Your task to perform on an android device: Search for razer blade on bestbuy, select the first entry, add it to the cart, then select checkout. Image 0: 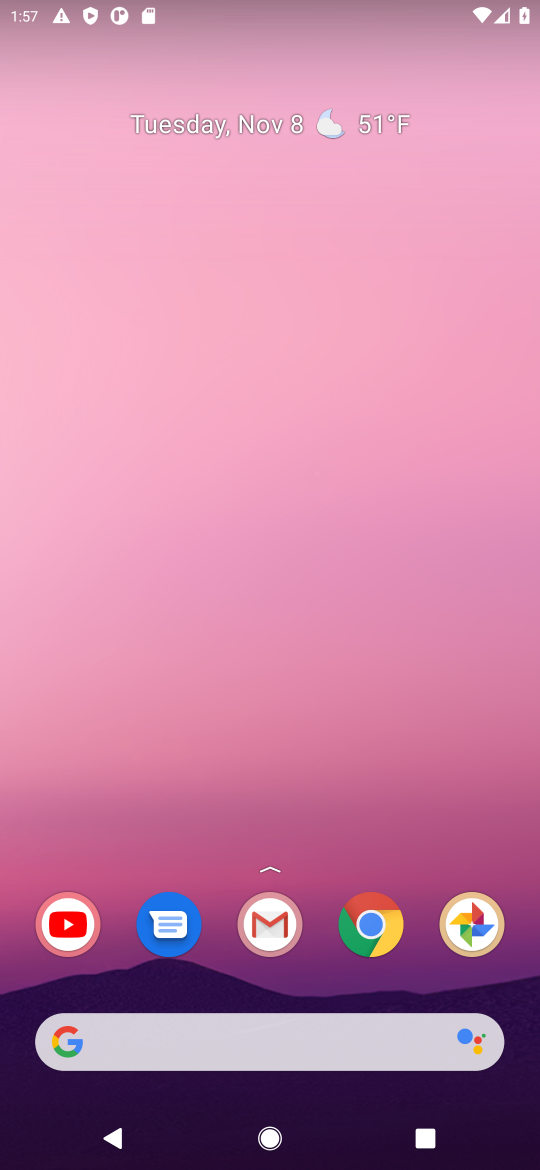
Step 0: click (358, 925)
Your task to perform on an android device: Search for razer blade on bestbuy, select the first entry, add it to the cart, then select checkout. Image 1: 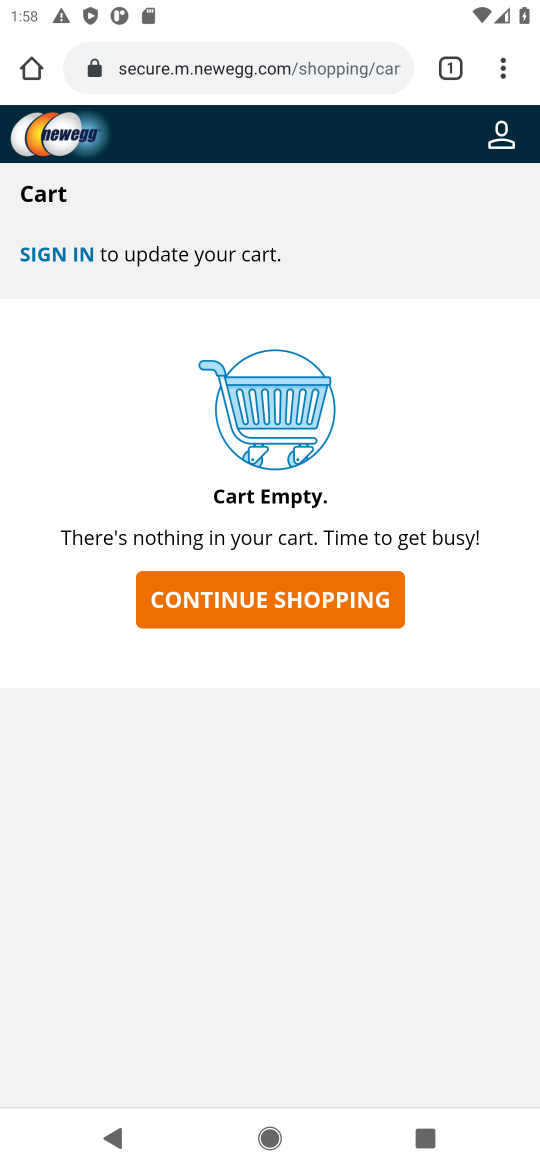
Step 1: click (285, 58)
Your task to perform on an android device: Search for razer blade on bestbuy, select the first entry, add it to the cart, then select checkout. Image 2: 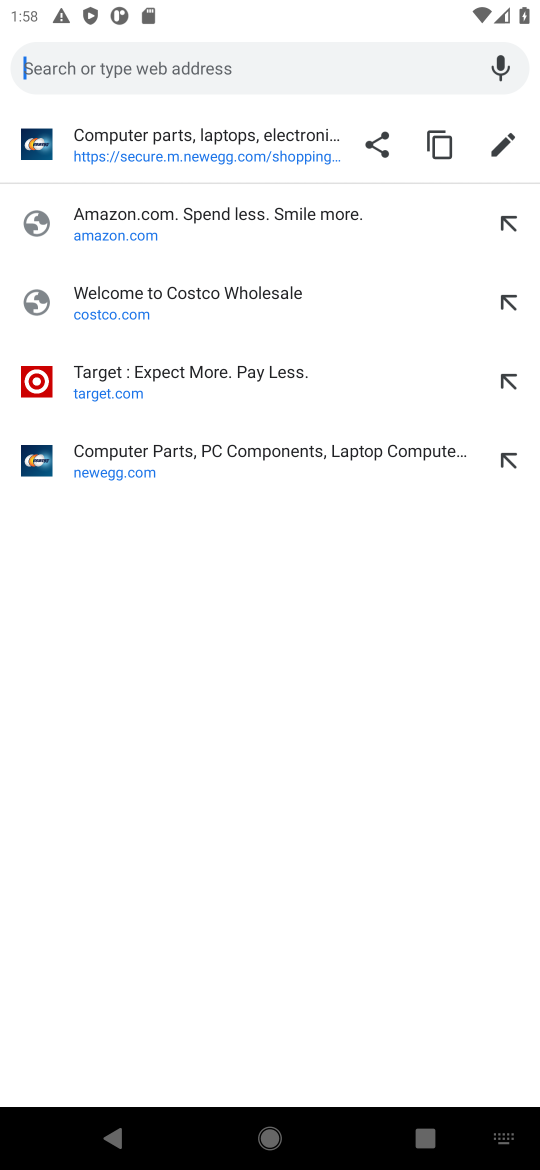
Step 2: type "bestbuy"
Your task to perform on an android device: Search for razer blade on bestbuy, select the first entry, add it to the cart, then select checkout. Image 3: 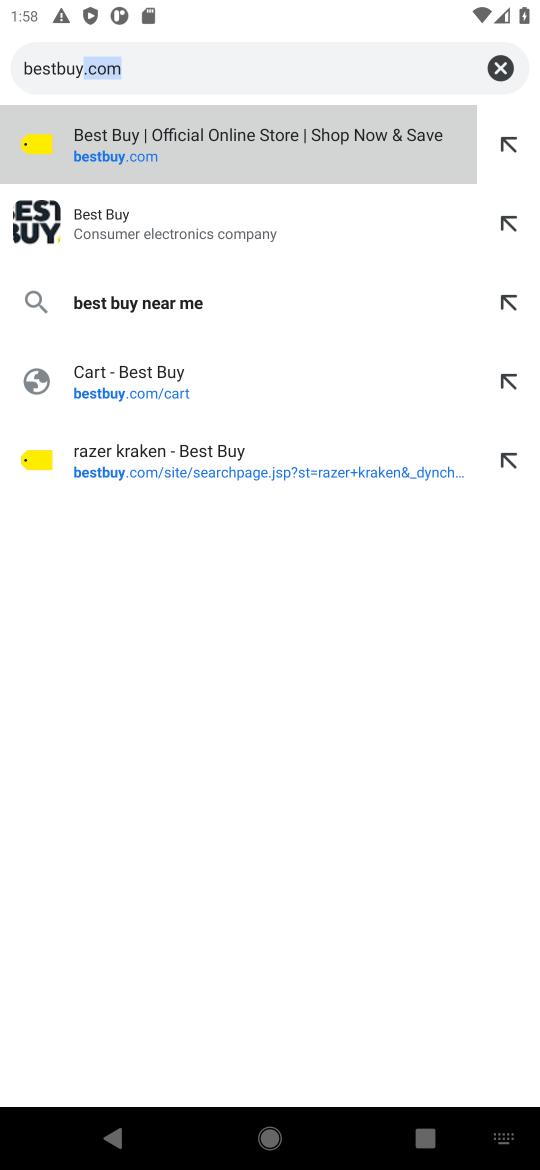
Step 3: type ""
Your task to perform on an android device: Search for razer blade on bestbuy, select the first entry, add it to the cart, then select checkout. Image 4: 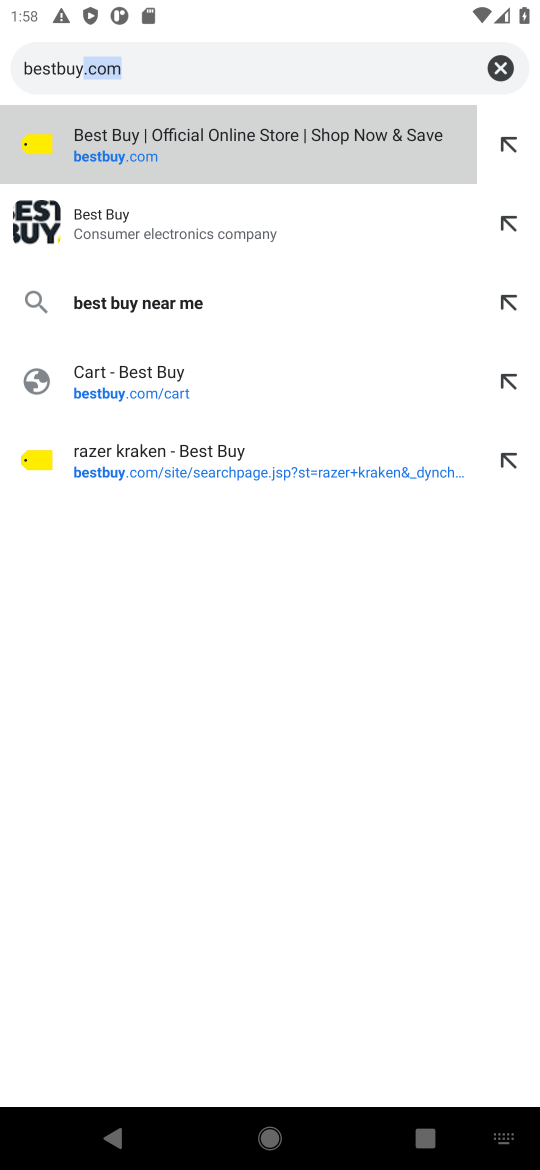
Step 4: click (83, 233)
Your task to perform on an android device: Search for razer blade on bestbuy, select the first entry, add it to the cart, then select checkout. Image 5: 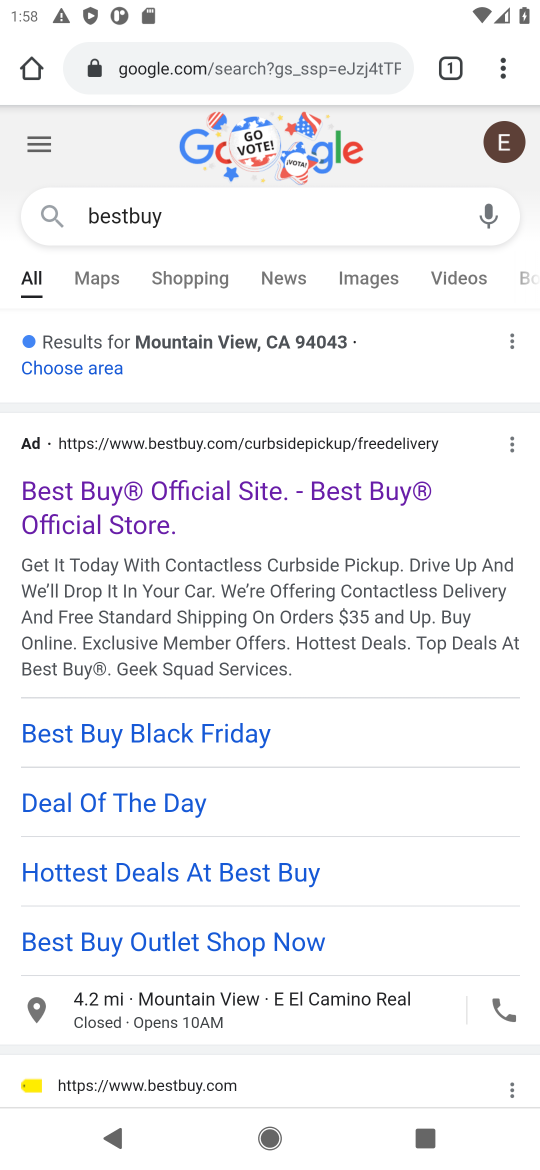
Step 5: click (203, 478)
Your task to perform on an android device: Search for razer blade on bestbuy, select the first entry, add it to the cart, then select checkout. Image 6: 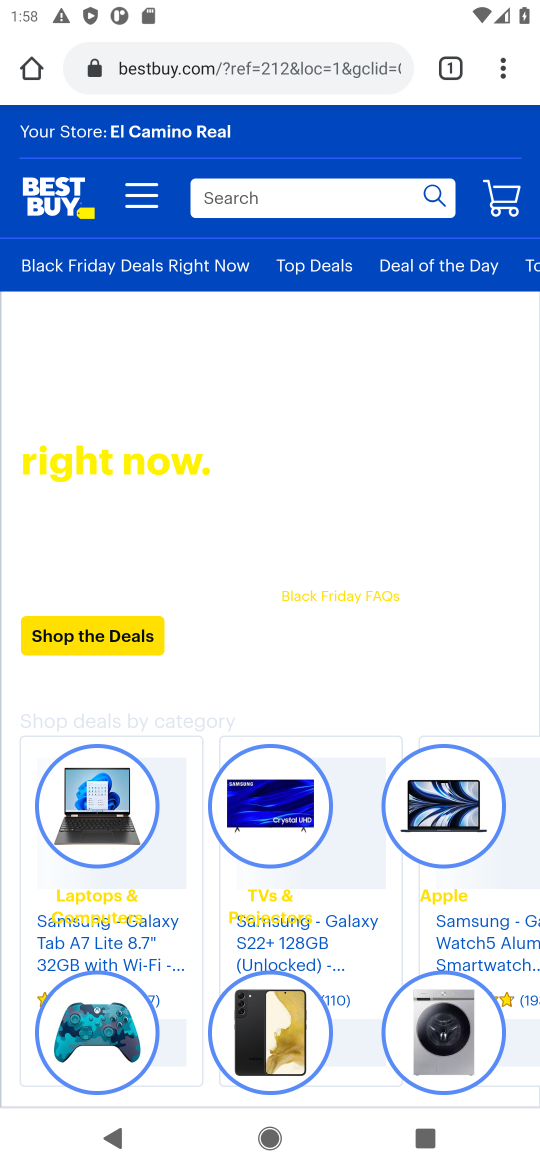
Step 6: click (235, 200)
Your task to perform on an android device: Search for razer blade on bestbuy, select the first entry, add it to the cart, then select checkout. Image 7: 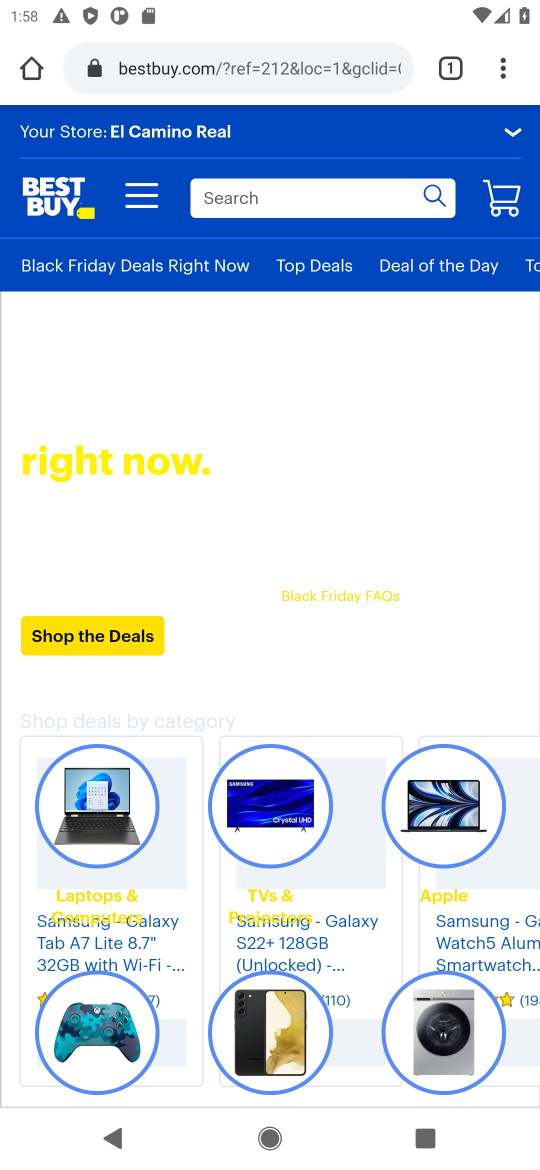
Step 7: type "razer blade"
Your task to perform on an android device: Search for razer blade on bestbuy, select the first entry, add it to the cart, then select checkout. Image 8: 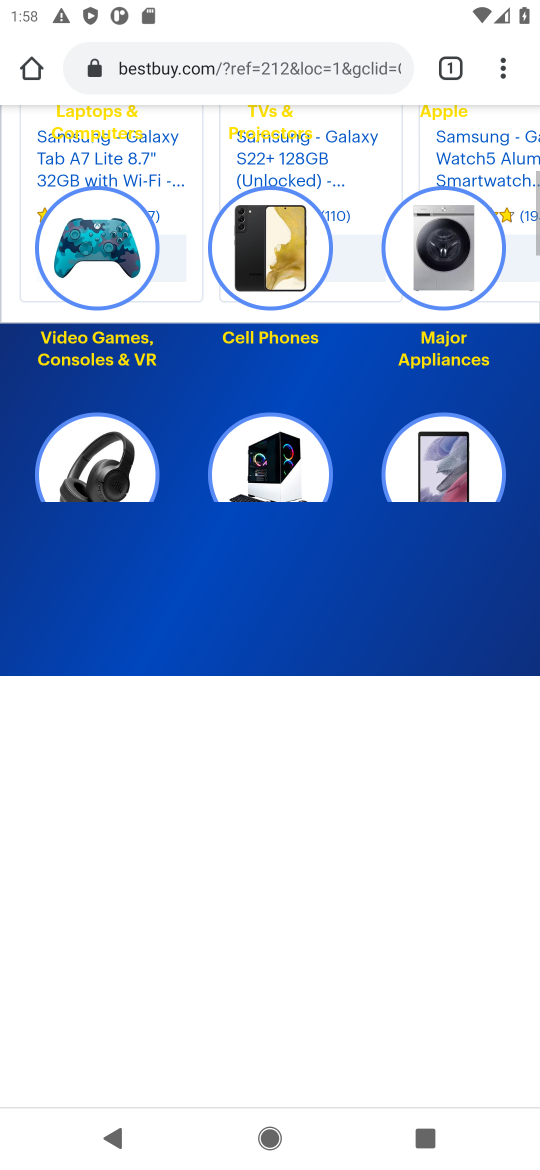
Step 8: type ""
Your task to perform on an android device: Search for razer blade on bestbuy, select the first entry, add it to the cart, then select checkout. Image 9: 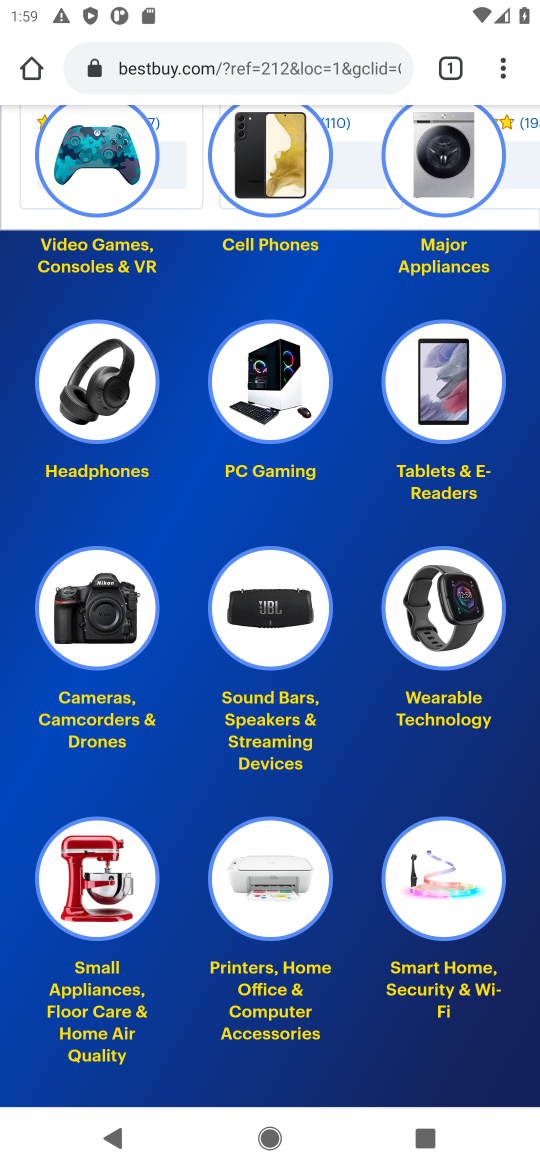
Step 9: drag from (200, 136) to (245, 916)
Your task to perform on an android device: Search for razer blade on bestbuy, select the first entry, add it to the cart, then select checkout. Image 10: 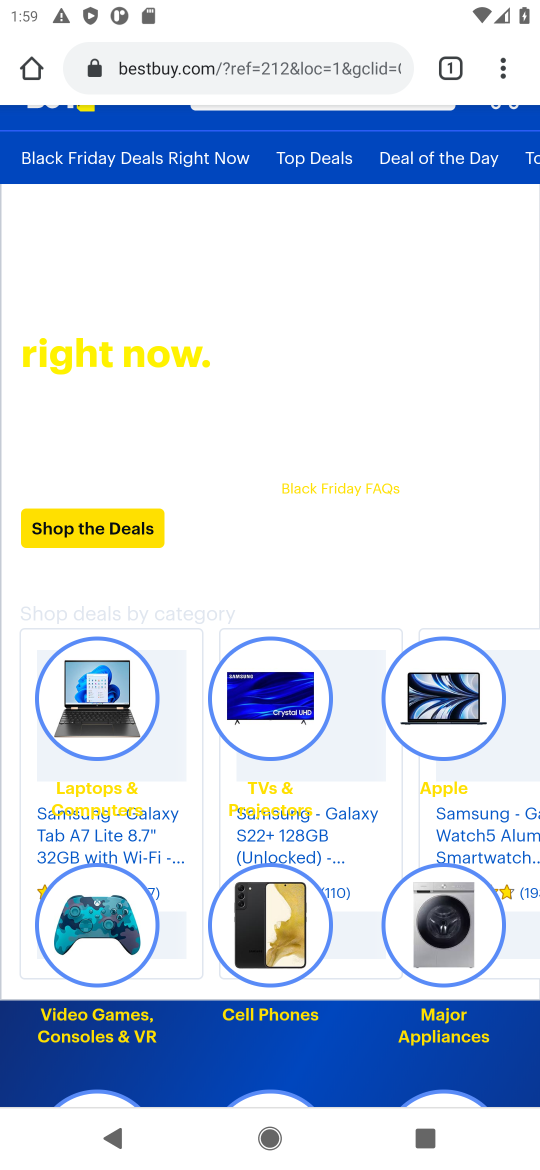
Step 10: drag from (337, 284) to (338, 573)
Your task to perform on an android device: Search for razer blade on bestbuy, select the first entry, add it to the cart, then select checkout. Image 11: 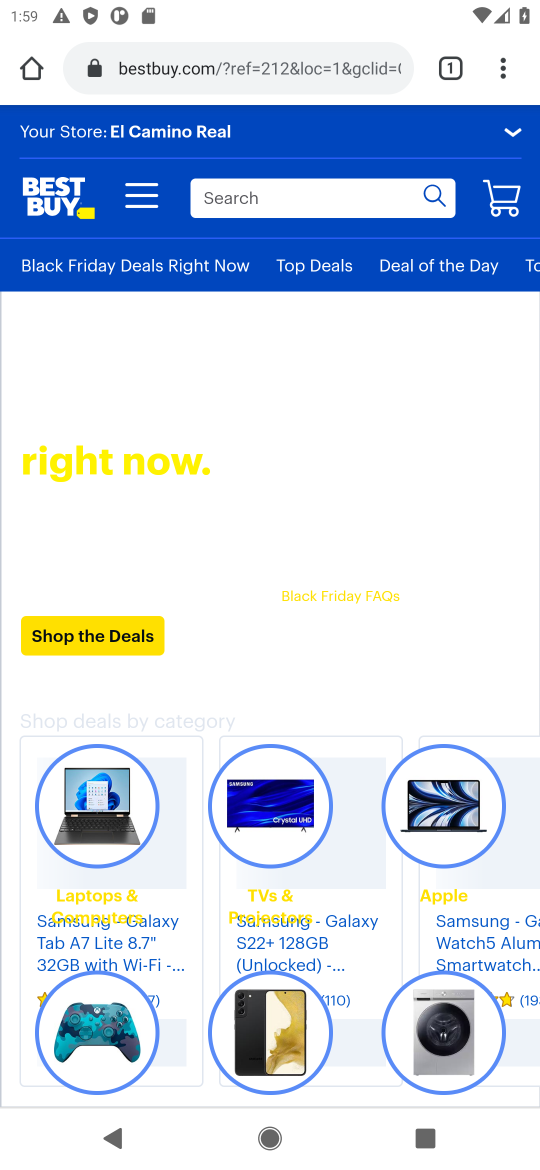
Step 11: click (242, 198)
Your task to perform on an android device: Search for razer blade on bestbuy, select the first entry, add it to the cart, then select checkout. Image 12: 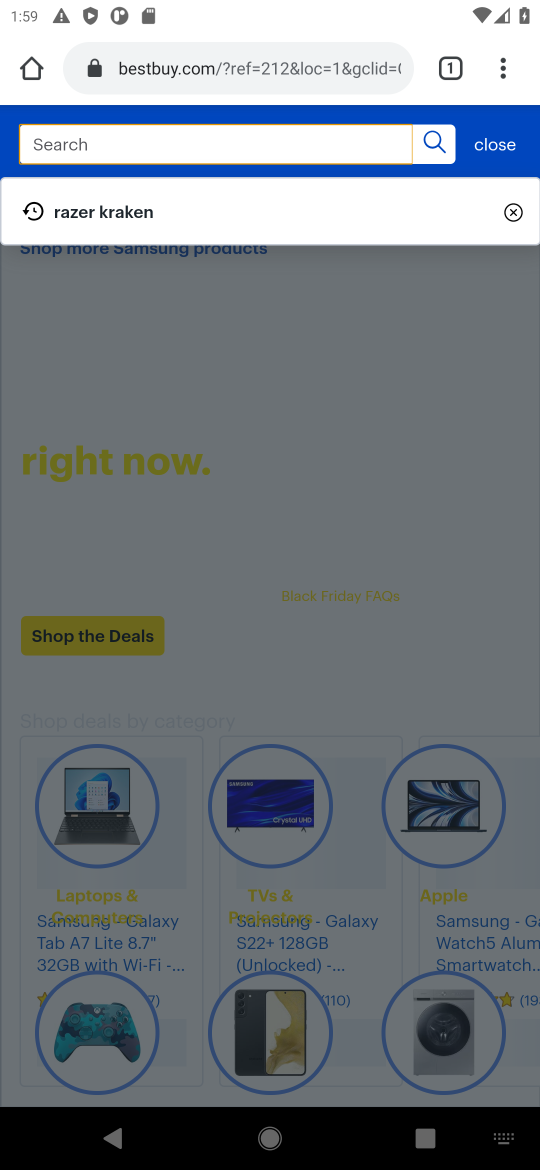
Step 12: type "razer blade"
Your task to perform on an android device: Search for razer blade on bestbuy, select the first entry, add it to the cart, then select checkout. Image 13: 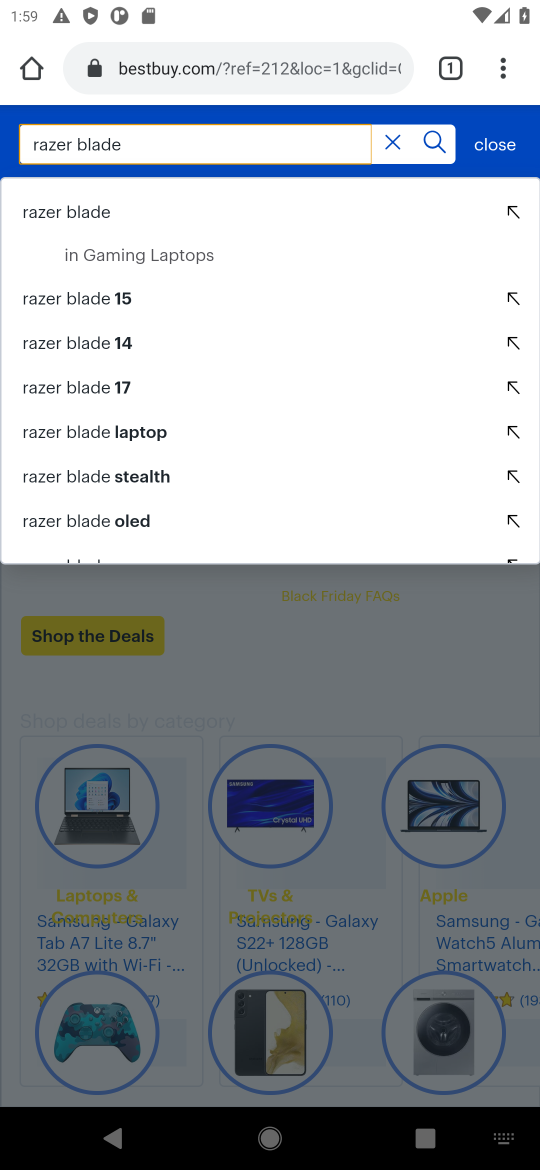
Step 13: click (83, 211)
Your task to perform on an android device: Search for razer blade on bestbuy, select the first entry, add it to the cart, then select checkout. Image 14: 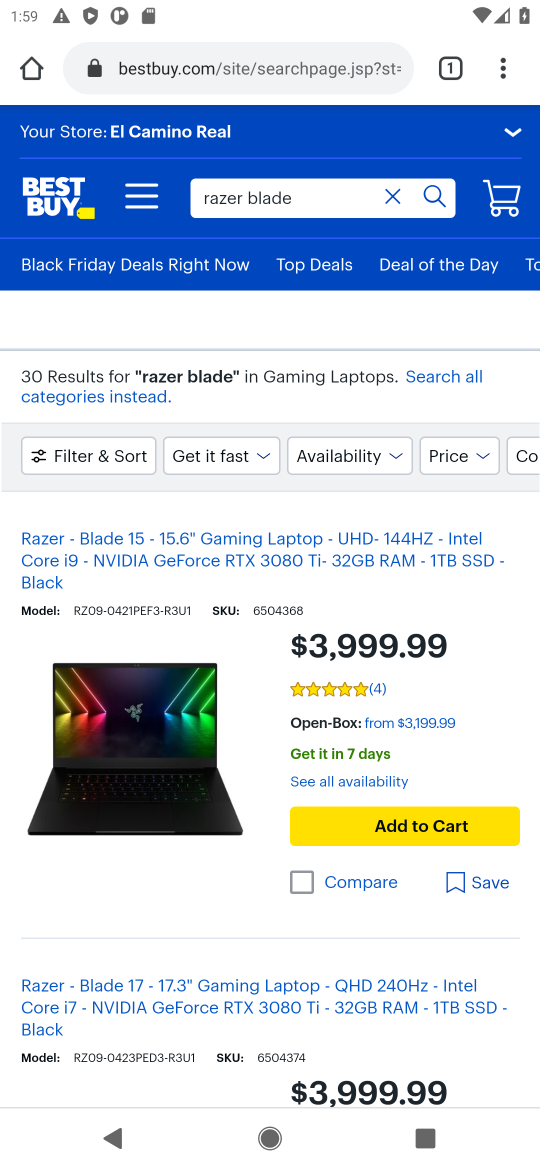
Step 14: click (371, 819)
Your task to perform on an android device: Search for razer blade on bestbuy, select the first entry, add it to the cart, then select checkout. Image 15: 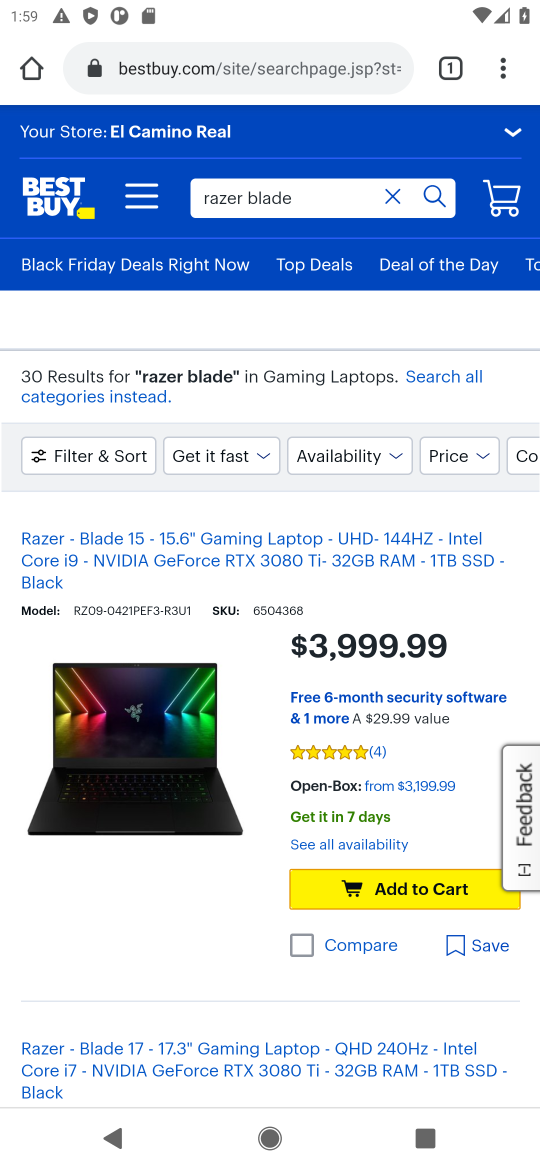
Step 15: click (402, 891)
Your task to perform on an android device: Search for razer blade on bestbuy, select the first entry, add it to the cart, then select checkout. Image 16: 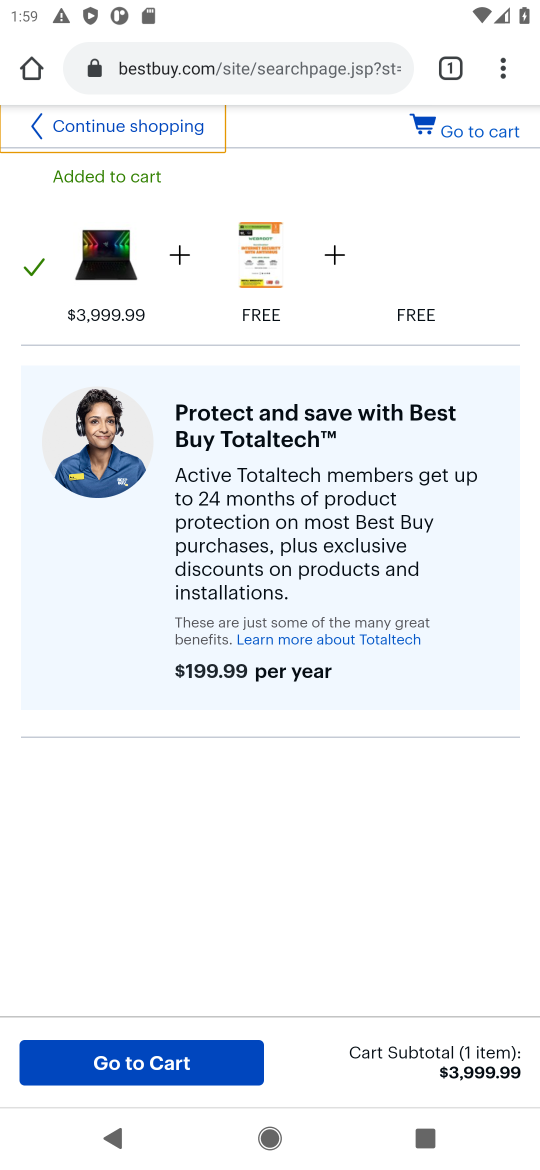
Step 16: click (166, 1049)
Your task to perform on an android device: Search for razer blade on bestbuy, select the first entry, add it to the cart, then select checkout. Image 17: 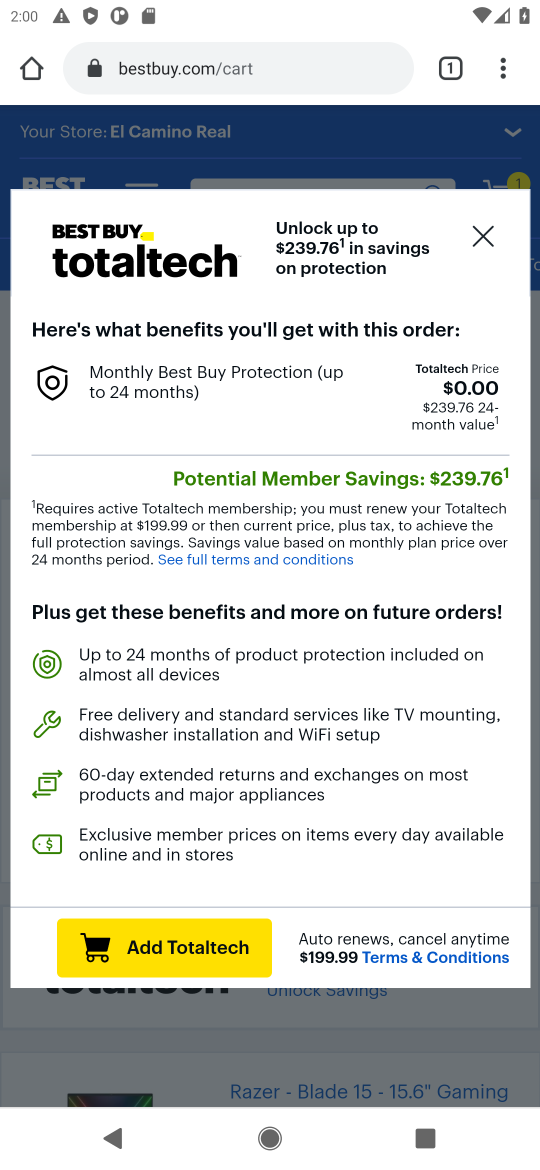
Step 17: click (482, 236)
Your task to perform on an android device: Search for razer blade on bestbuy, select the first entry, add it to the cart, then select checkout. Image 18: 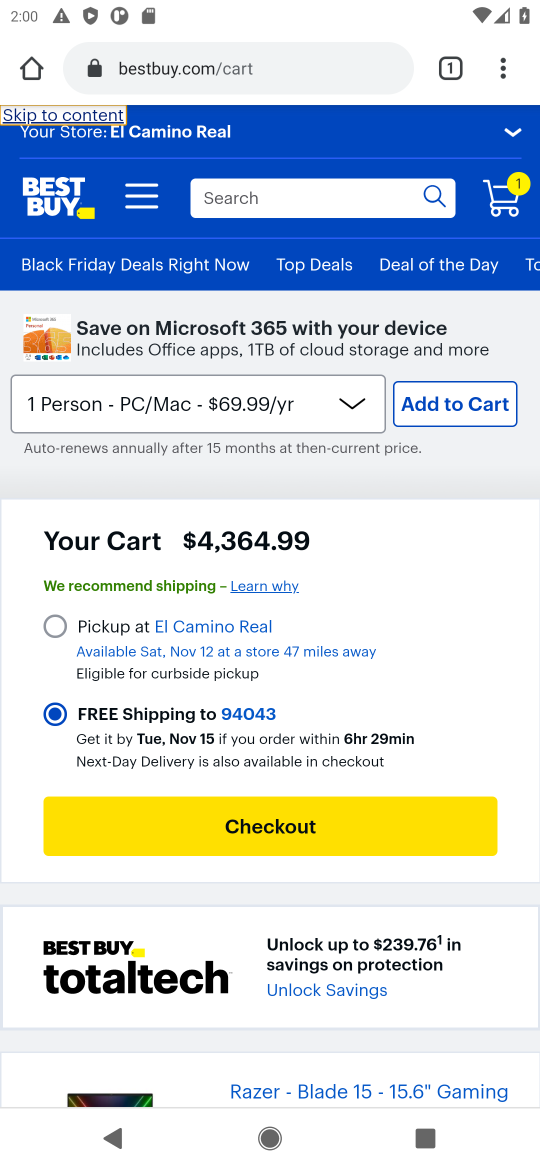
Step 18: click (326, 833)
Your task to perform on an android device: Search for razer blade on bestbuy, select the first entry, add it to the cart, then select checkout. Image 19: 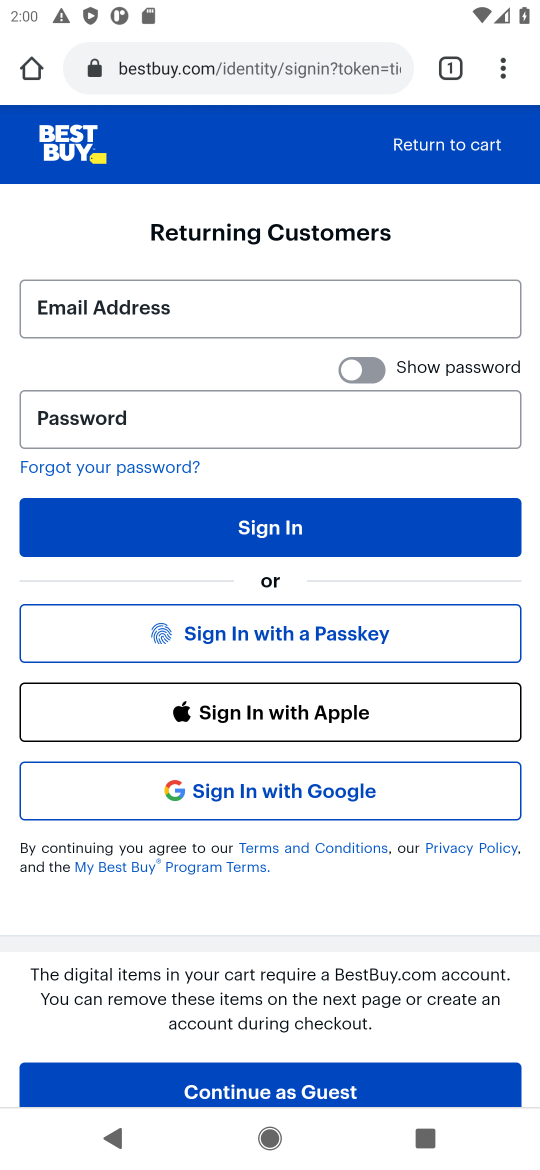
Step 19: task complete